Your task to perform on an android device: turn on sleep mode Image 0: 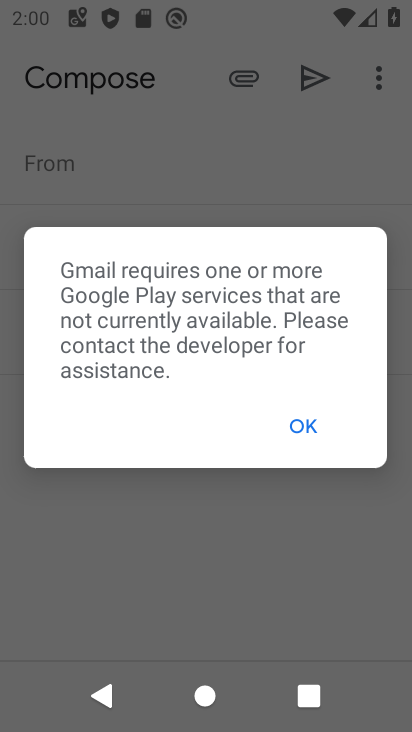
Step 0: press home button
Your task to perform on an android device: turn on sleep mode Image 1: 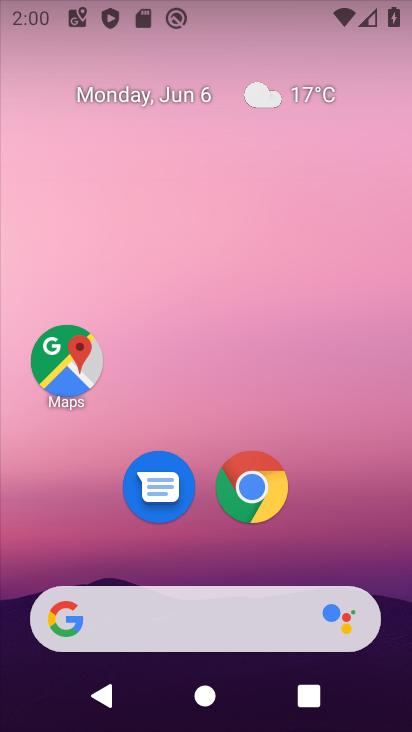
Step 1: drag from (97, 606) to (273, 45)
Your task to perform on an android device: turn on sleep mode Image 2: 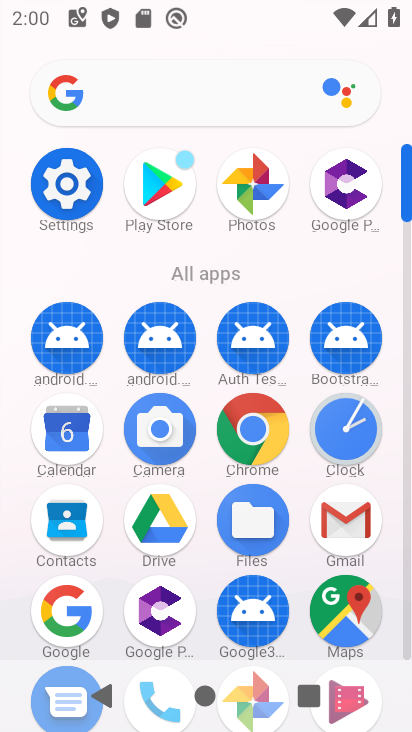
Step 2: drag from (152, 633) to (213, 311)
Your task to perform on an android device: turn on sleep mode Image 3: 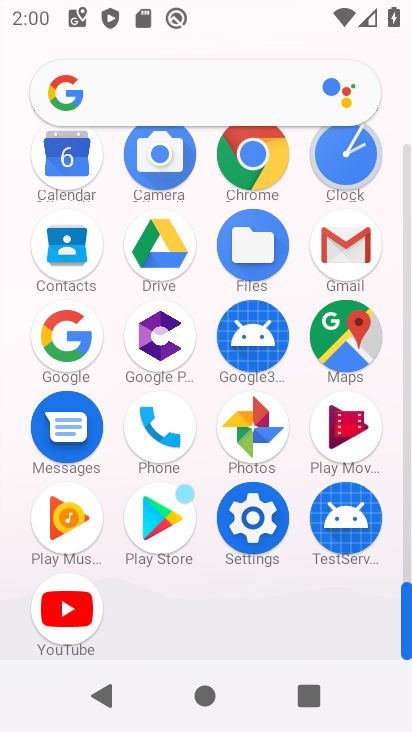
Step 3: click (251, 541)
Your task to perform on an android device: turn on sleep mode Image 4: 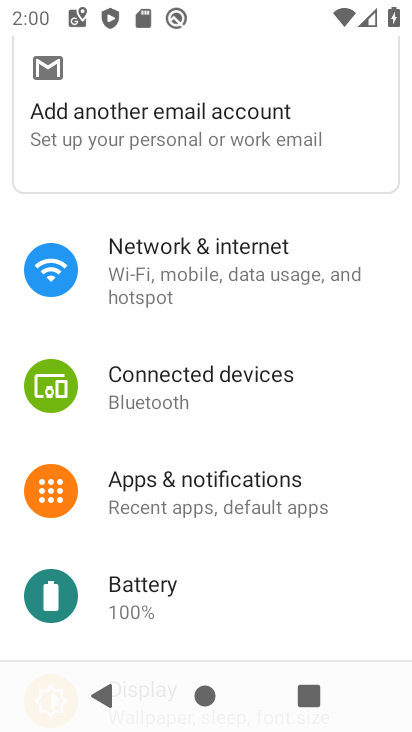
Step 4: drag from (147, 593) to (249, 146)
Your task to perform on an android device: turn on sleep mode Image 5: 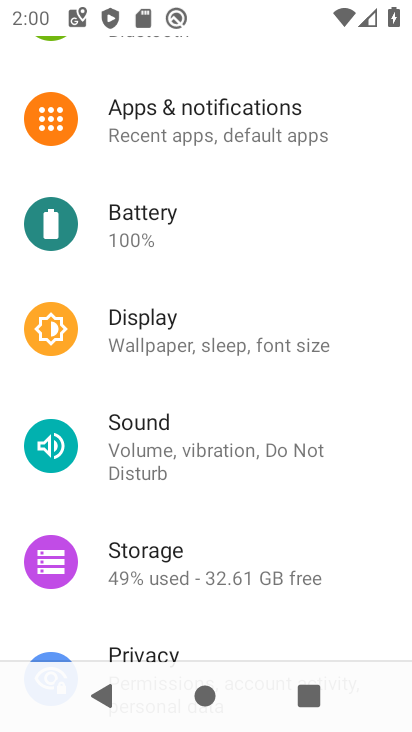
Step 5: click (190, 335)
Your task to perform on an android device: turn on sleep mode Image 6: 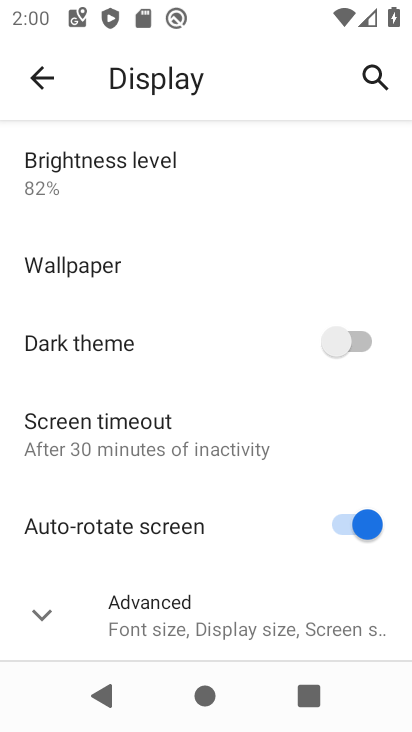
Step 6: click (149, 641)
Your task to perform on an android device: turn on sleep mode Image 7: 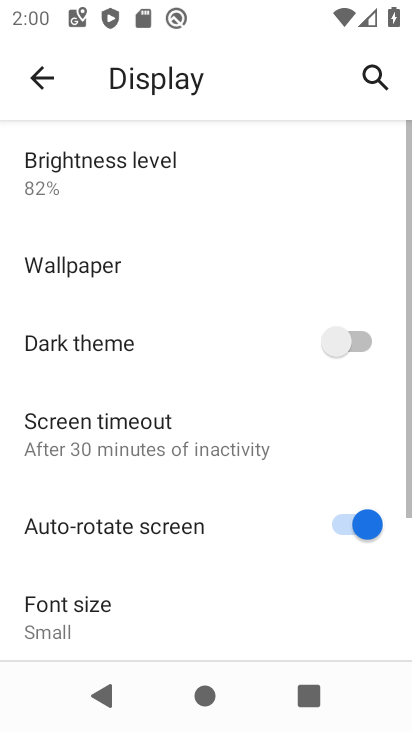
Step 7: task complete